Your task to perform on an android device: Check the news Image 0: 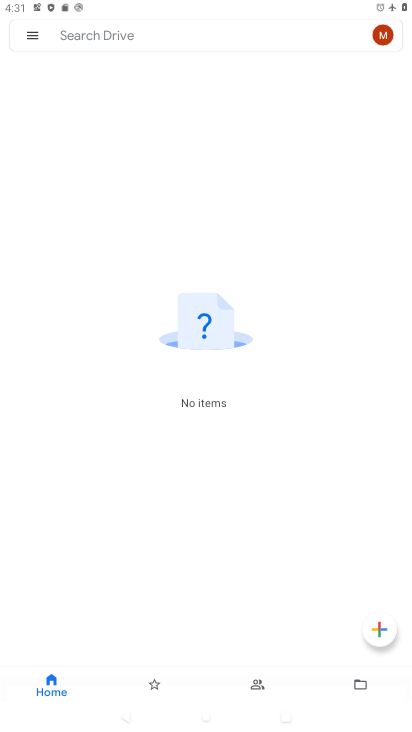
Step 0: press home button
Your task to perform on an android device: Check the news Image 1: 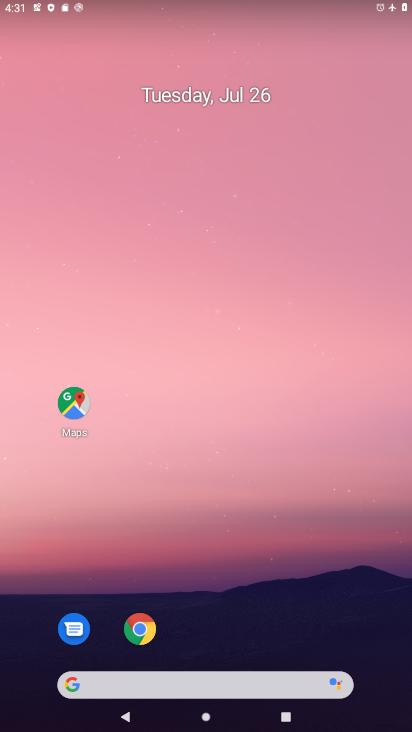
Step 1: task complete